Your task to perform on an android device: Go to wifi settings Image 0: 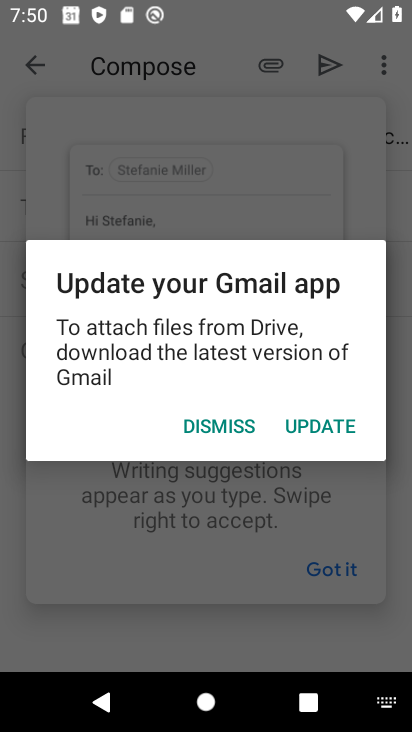
Step 0: press home button
Your task to perform on an android device: Go to wifi settings Image 1: 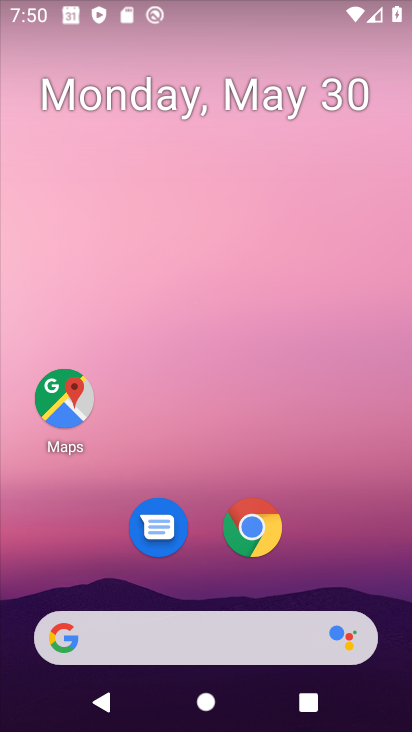
Step 1: drag from (341, 573) to (236, 6)
Your task to perform on an android device: Go to wifi settings Image 2: 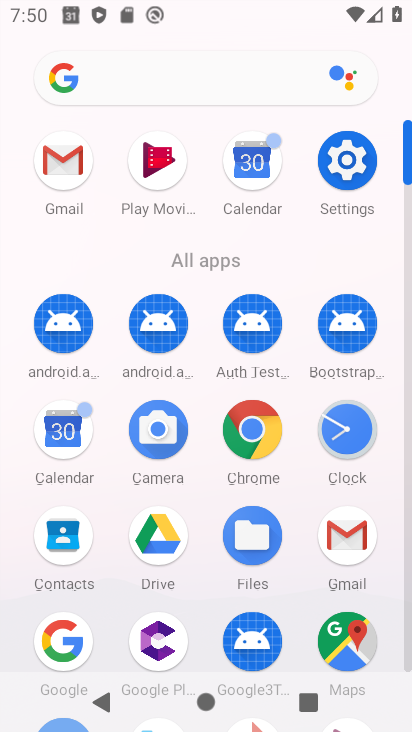
Step 2: click (325, 154)
Your task to perform on an android device: Go to wifi settings Image 3: 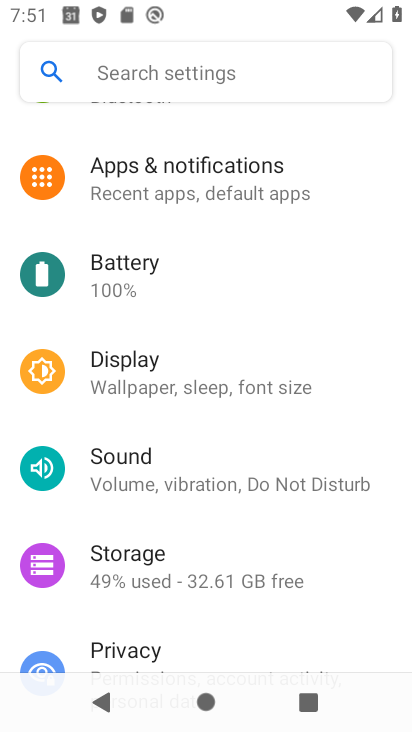
Step 3: drag from (123, 275) to (177, 459)
Your task to perform on an android device: Go to wifi settings Image 4: 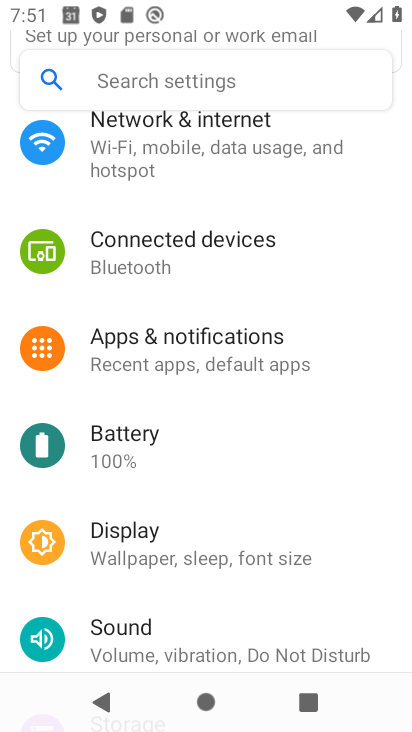
Step 4: click (128, 159)
Your task to perform on an android device: Go to wifi settings Image 5: 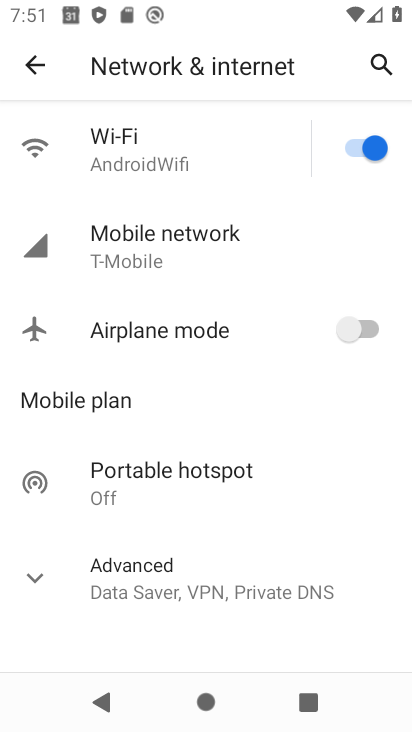
Step 5: click (131, 161)
Your task to perform on an android device: Go to wifi settings Image 6: 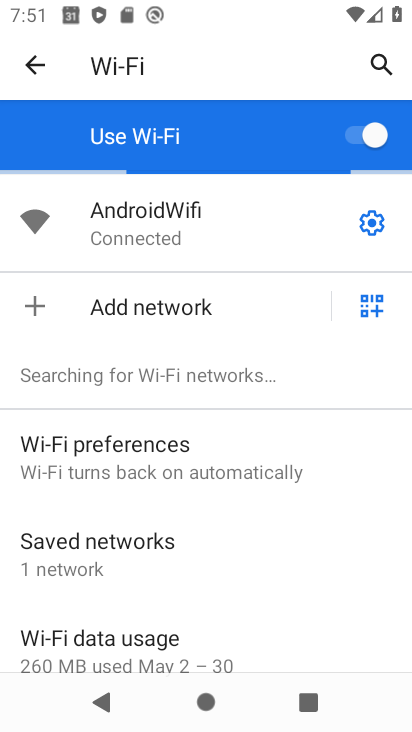
Step 6: task complete